Your task to perform on an android device: Open the stopwatch Image 0: 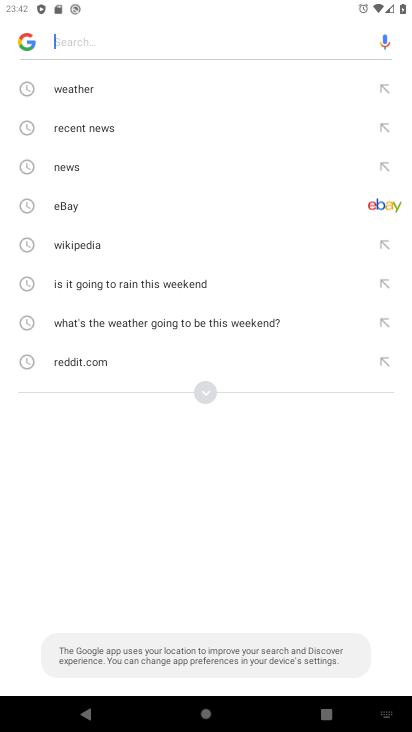
Step 0: press back button
Your task to perform on an android device: Open the stopwatch Image 1: 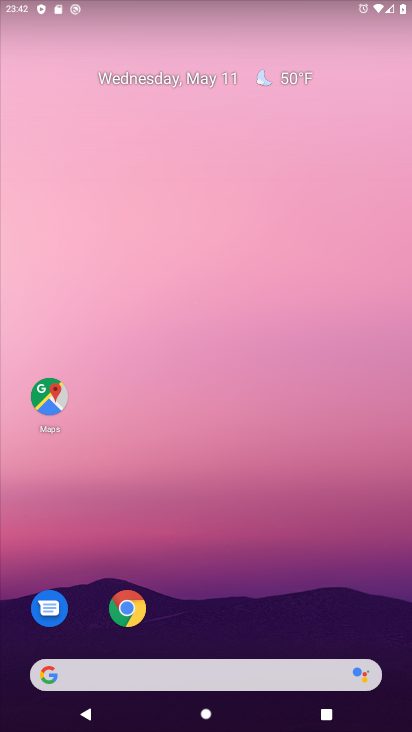
Step 1: drag from (232, 600) to (184, 78)
Your task to perform on an android device: Open the stopwatch Image 2: 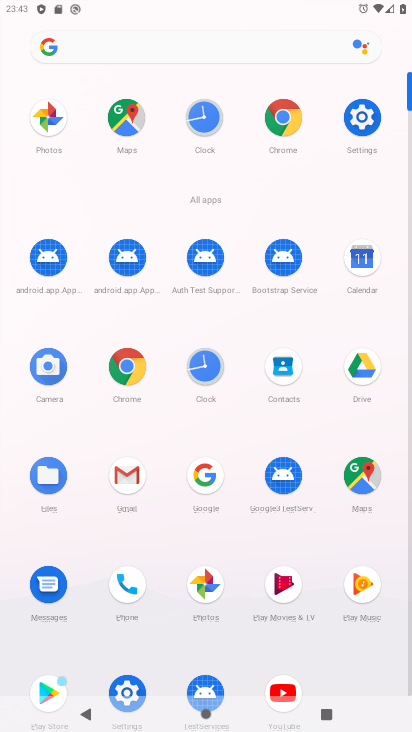
Step 2: click (202, 119)
Your task to perform on an android device: Open the stopwatch Image 3: 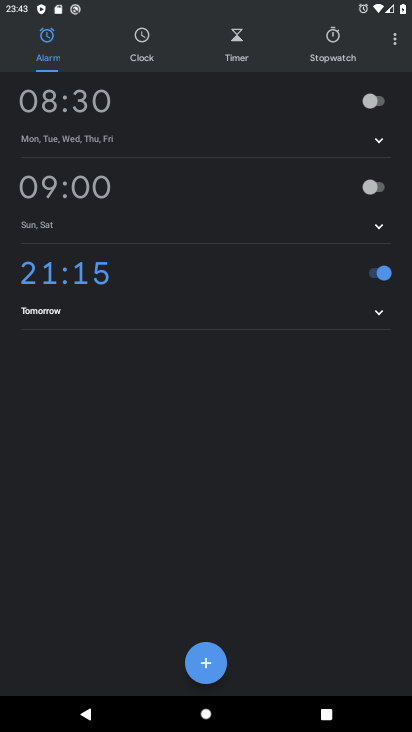
Step 3: click (334, 40)
Your task to perform on an android device: Open the stopwatch Image 4: 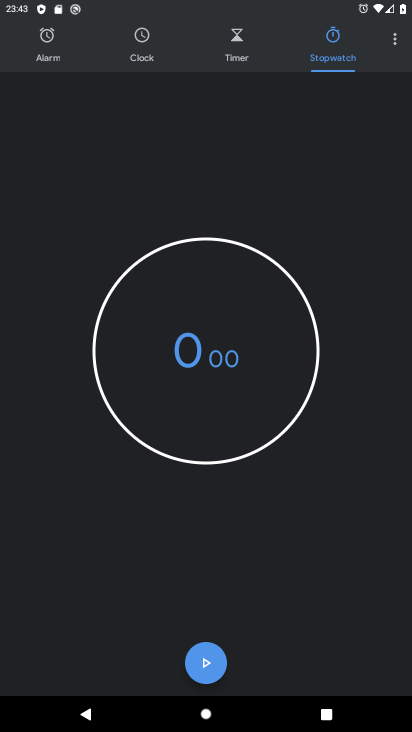
Step 4: task complete